Your task to perform on an android device: Play the new Taylor Swift video on YouTube Image 0: 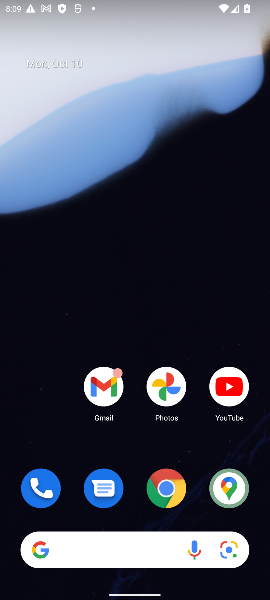
Step 0: click (239, 388)
Your task to perform on an android device: Play the new Taylor Swift video on YouTube Image 1: 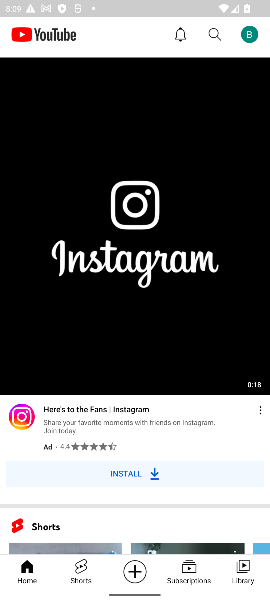
Step 1: click (193, 33)
Your task to perform on an android device: Play the new Taylor Swift video on YouTube Image 2: 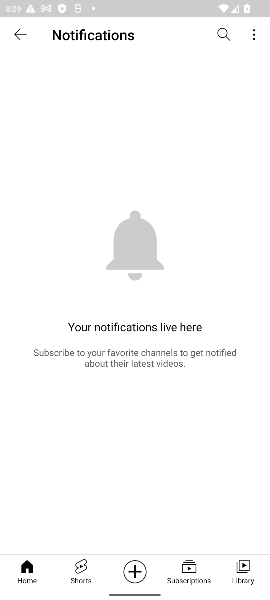
Step 2: click (8, 41)
Your task to perform on an android device: Play the new Taylor Swift video on YouTube Image 3: 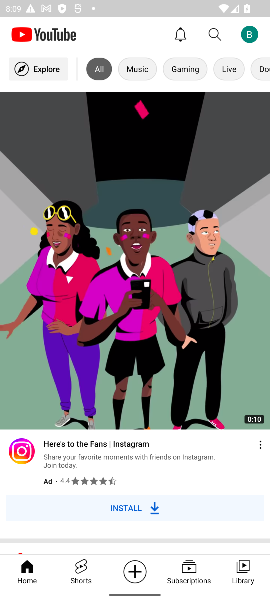
Step 3: click (214, 27)
Your task to perform on an android device: Play the new Taylor Swift video on YouTube Image 4: 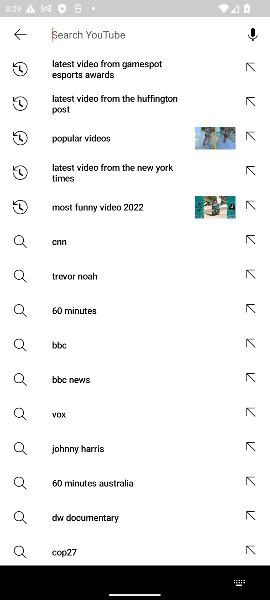
Step 4: type "Taylor Swift new video"
Your task to perform on an android device: Play the new Taylor Swift video on YouTube Image 5: 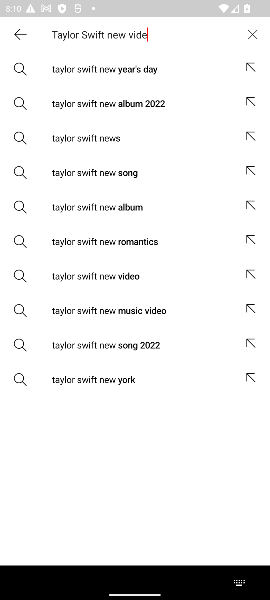
Step 5: type ""
Your task to perform on an android device: Play the new Taylor Swift video on YouTube Image 6: 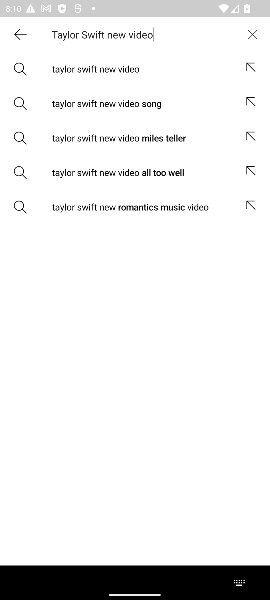
Step 6: press enter
Your task to perform on an android device: Play the new Taylor Swift video on YouTube Image 7: 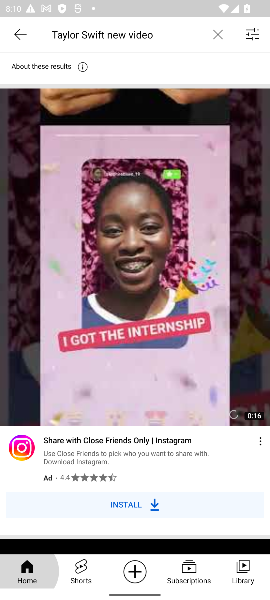
Step 7: drag from (114, 436) to (202, 112)
Your task to perform on an android device: Play the new Taylor Swift video on YouTube Image 8: 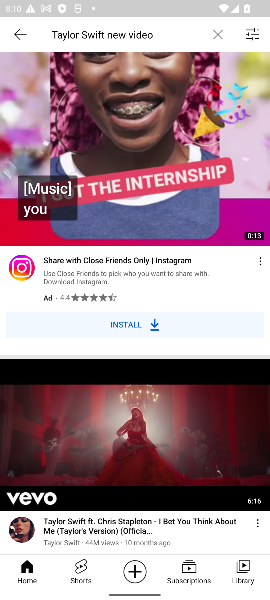
Step 8: drag from (92, 406) to (76, 260)
Your task to perform on an android device: Play the new Taylor Swift video on YouTube Image 9: 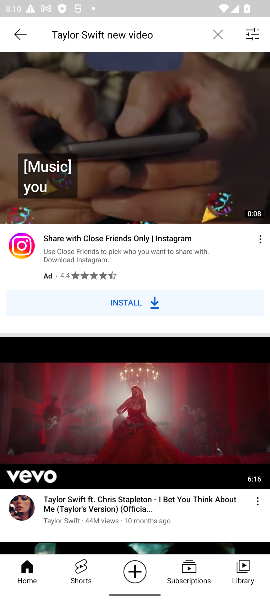
Step 9: click (65, 516)
Your task to perform on an android device: Play the new Taylor Swift video on YouTube Image 10: 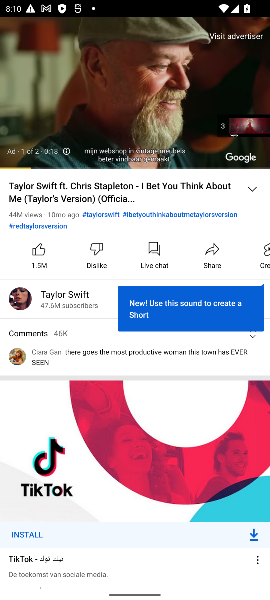
Step 10: click (42, 297)
Your task to perform on an android device: Play the new Taylor Swift video on YouTube Image 11: 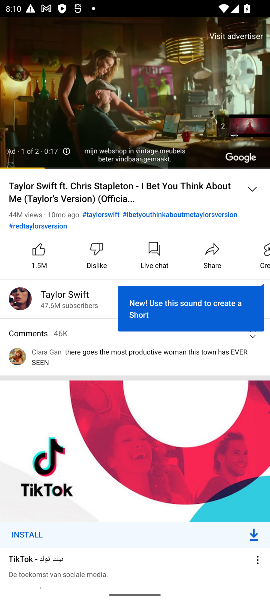
Step 11: click (60, 287)
Your task to perform on an android device: Play the new Taylor Swift video on YouTube Image 12: 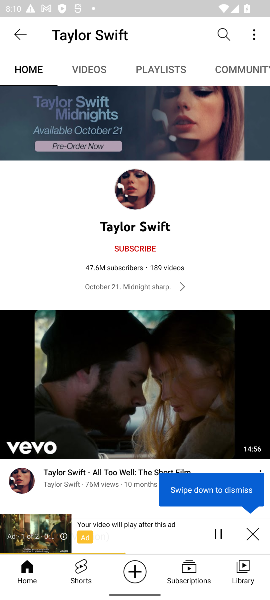
Step 12: click (88, 74)
Your task to perform on an android device: Play the new Taylor Swift video on YouTube Image 13: 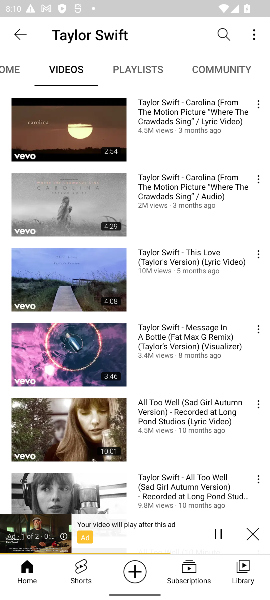
Step 13: click (66, 123)
Your task to perform on an android device: Play the new Taylor Swift video on YouTube Image 14: 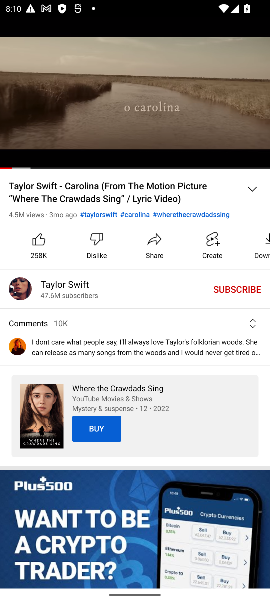
Step 14: task complete